Your task to perform on an android device: Add "dell xps" to the cart on walmart.com Image 0: 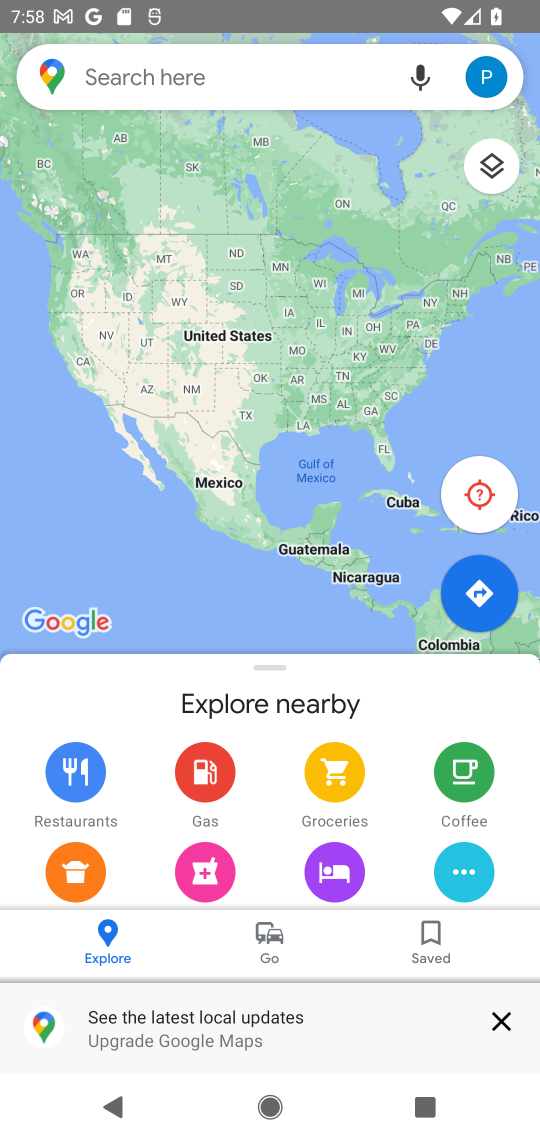
Step 0: press home button
Your task to perform on an android device: Add "dell xps" to the cart on walmart.com Image 1: 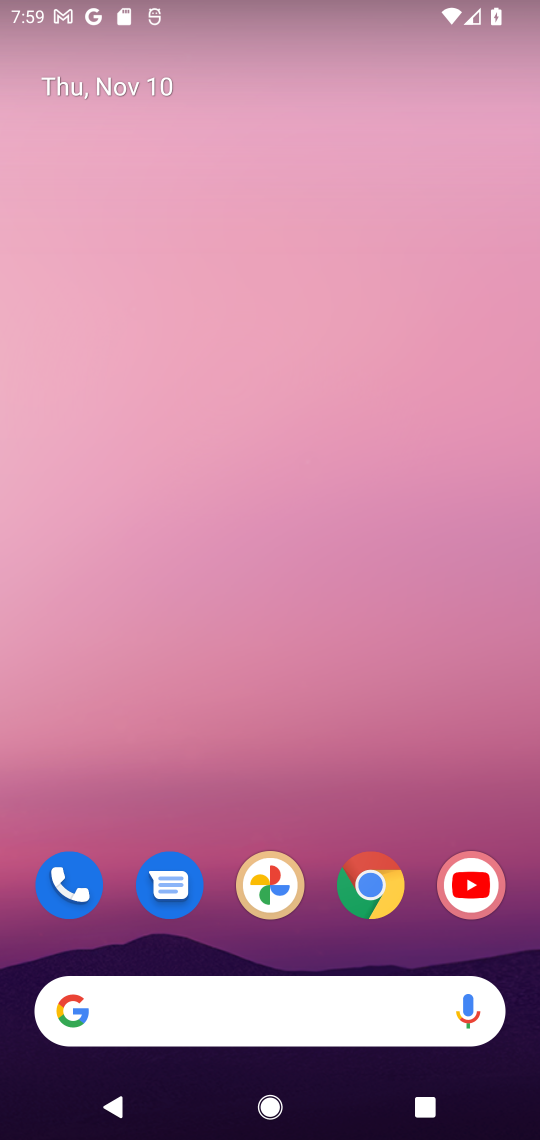
Step 1: click (374, 880)
Your task to perform on an android device: Add "dell xps" to the cart on walmart.com Image 2: 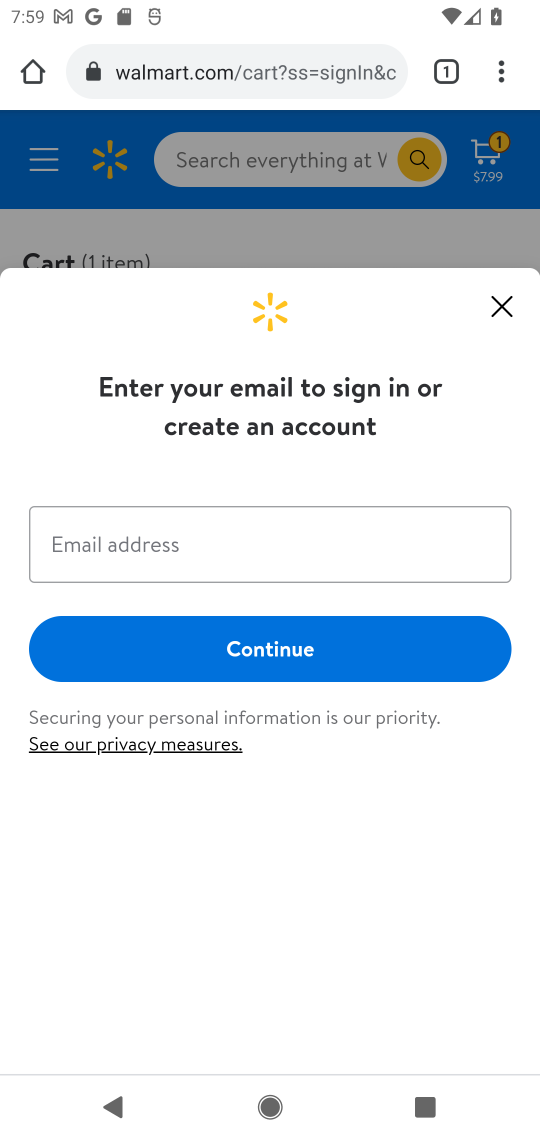
Step 2: click (501, 293)
Your task to perform on an android device: Add "dell xps" to the cart on walmart.com Image 3: 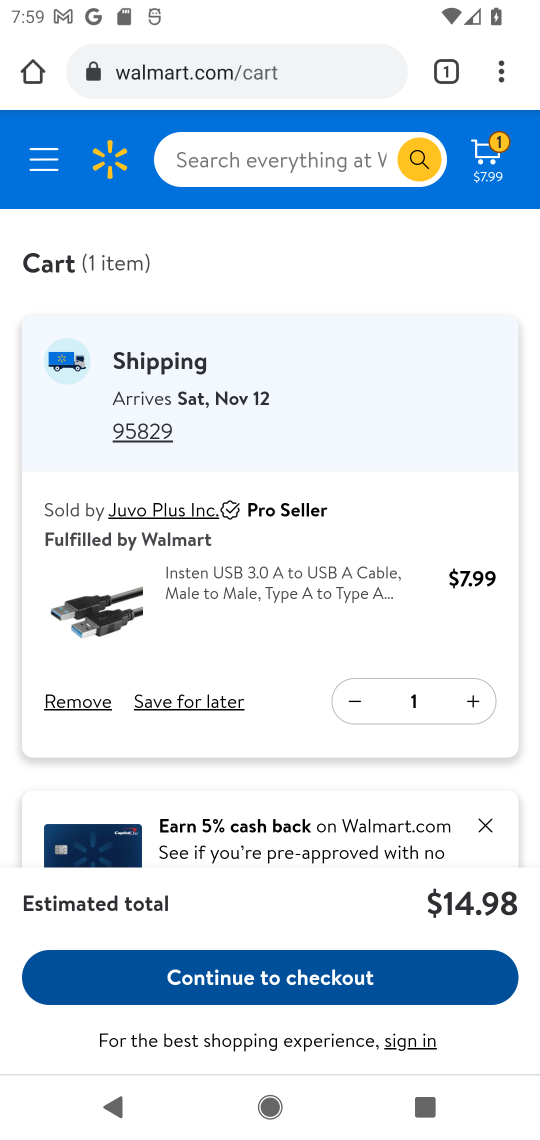
Step 3: click (310, 142)
Your task to perform on an android device: Add "dell xps" to the cart on walmart.com Image 4: 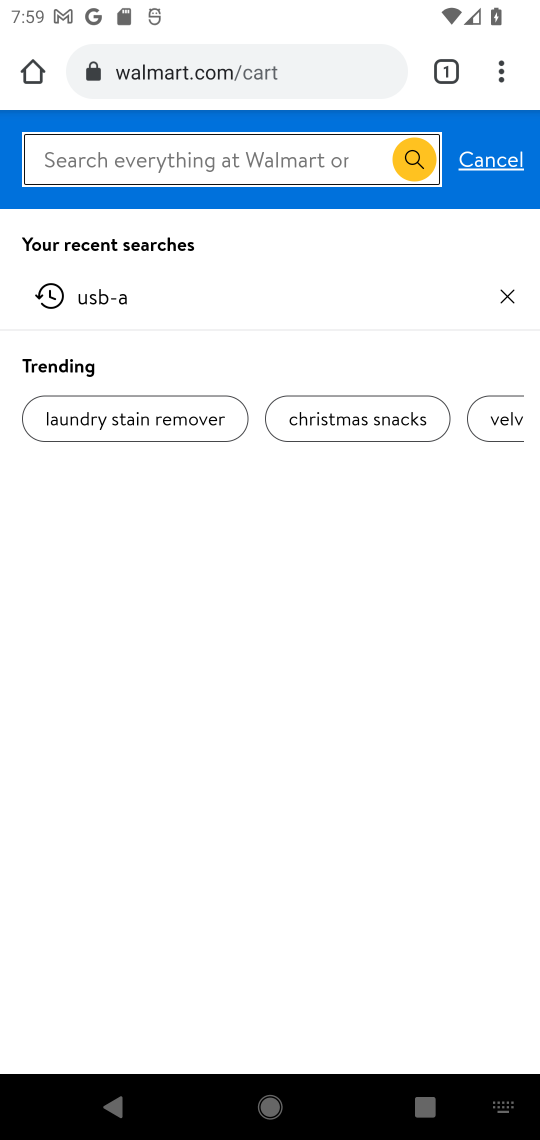
Step 4: type "dell xps"
Your task to perform on an android device: Add "dell xps" to the cart on walmart.com Image 5: 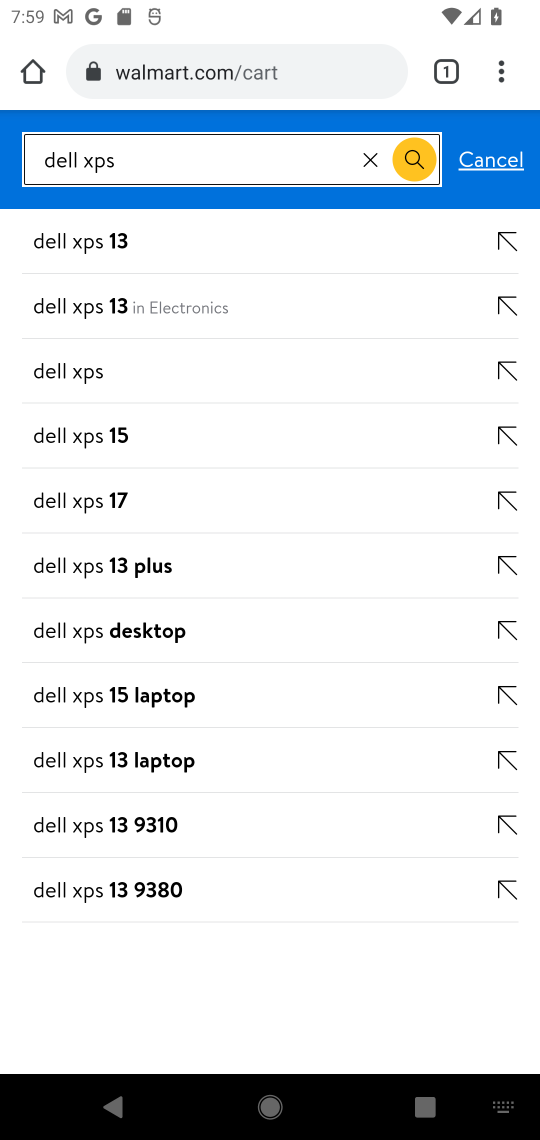
Step 5: click (87, 372)
Your task to perform on an android device: Add "dell xps" to the cart on walmart.com Image 6: 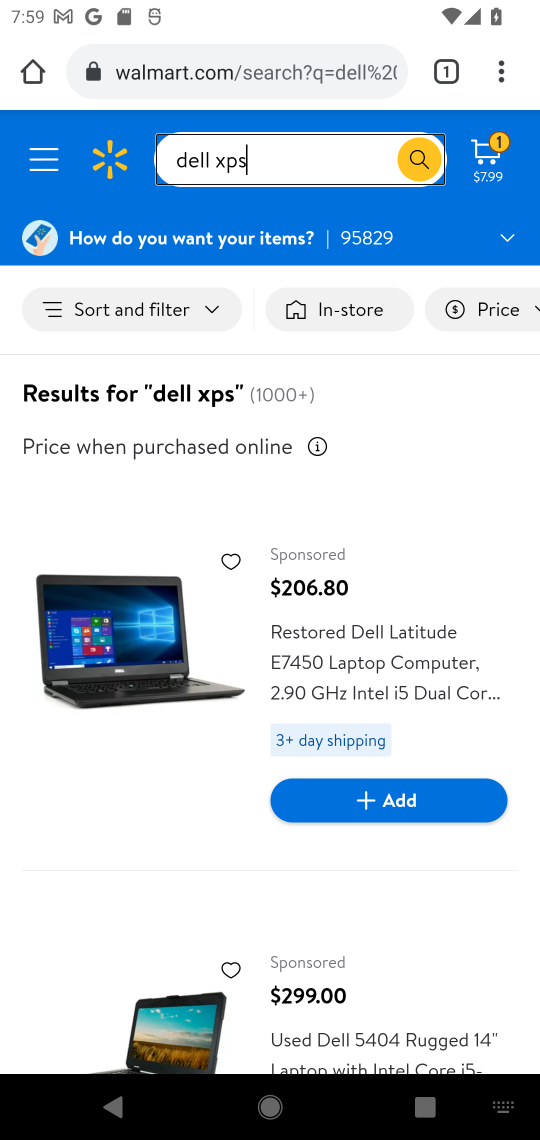
Step 6: drag from (144, 773) to (191, 383)
Your task to perform on an android device: Add "dell xps" to the cart on walmart.com Image 7: 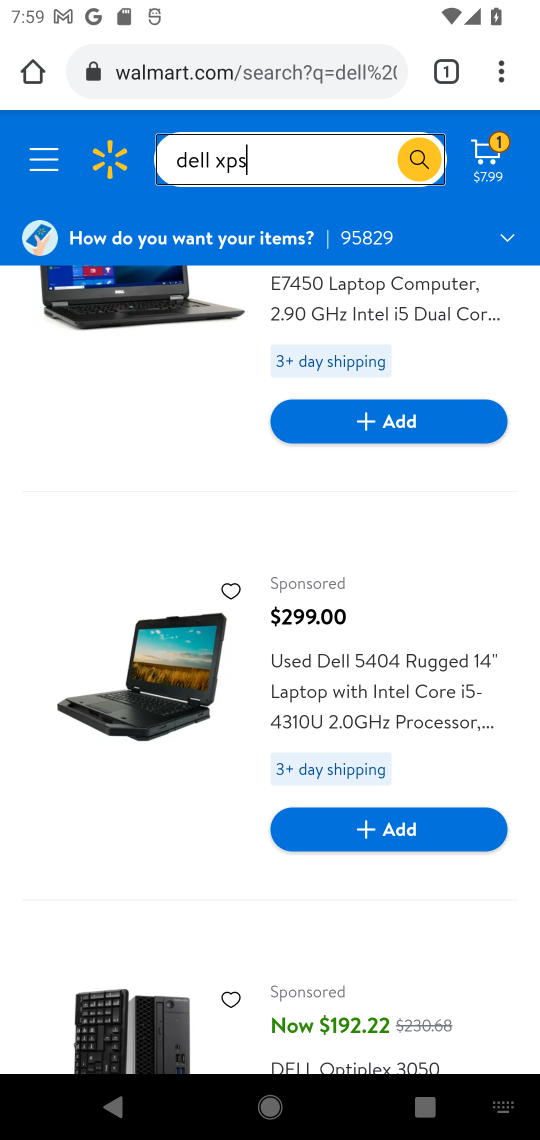
Step 7: drag from (450, 924) to (406, 591)
Your task to perform on an android device: Add "dell xps" to the cart on walmart.com Image 8: 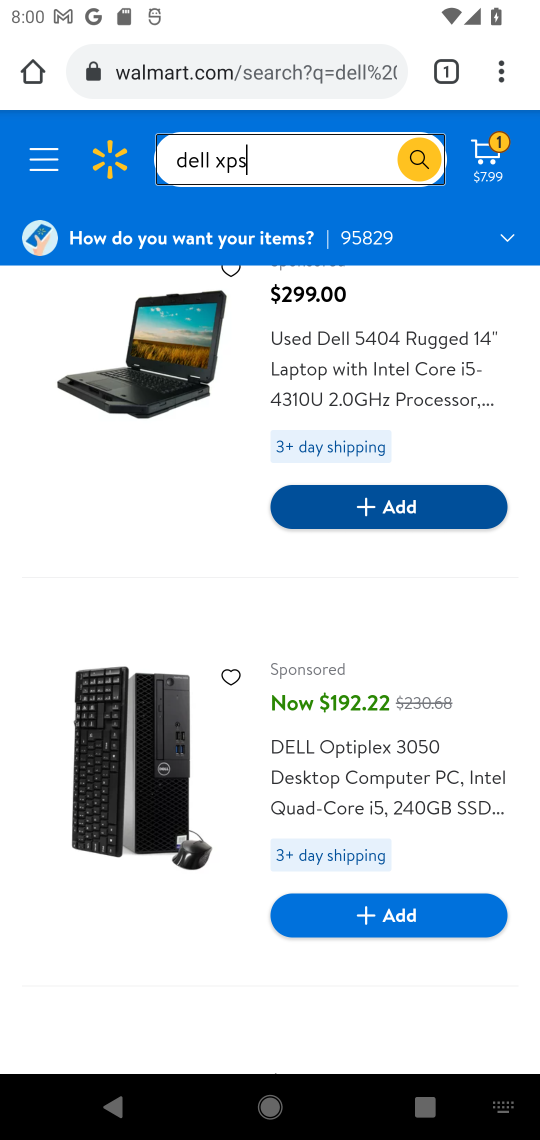
Step 8: drag from (381, 753) to (438, 354)
Your task to perform on an android device: Add "dell xps" to the cart on walmart.com Image 9: 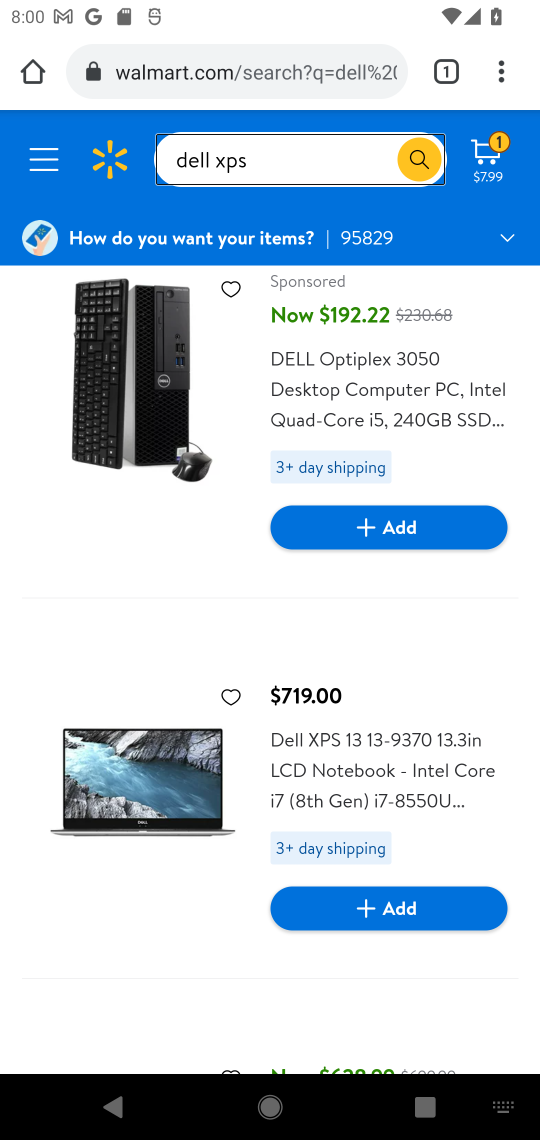
Step 9: click (143, 777)
Your task to perform on an android device: Add "dell xps" to the cart on walmart.com Image 10: 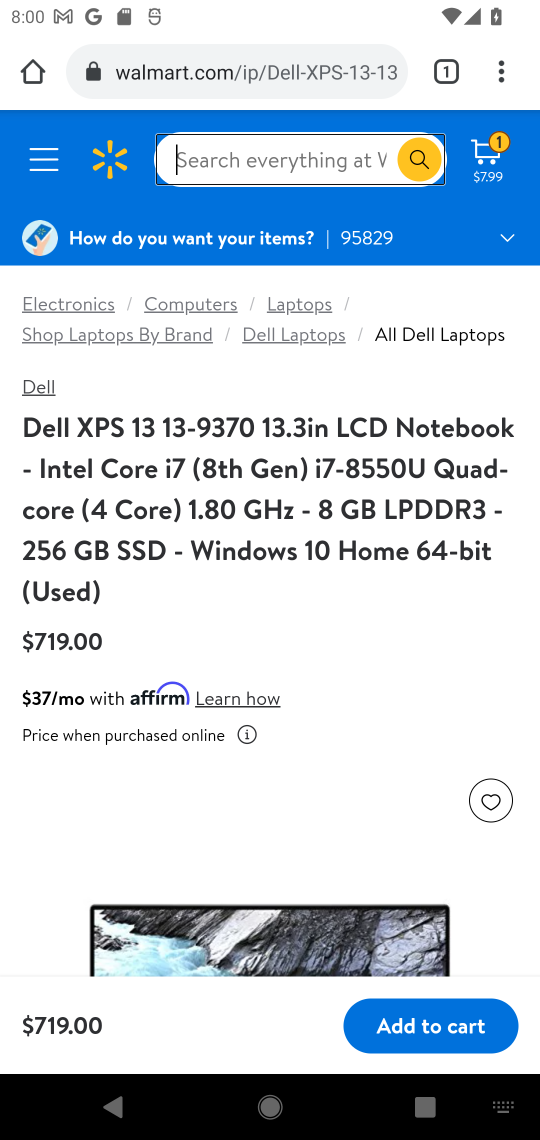
Step 10: click (391, 1024)
Your task to perform on an android device: Add "dell xps" to the cart on walmart.com Image 11: 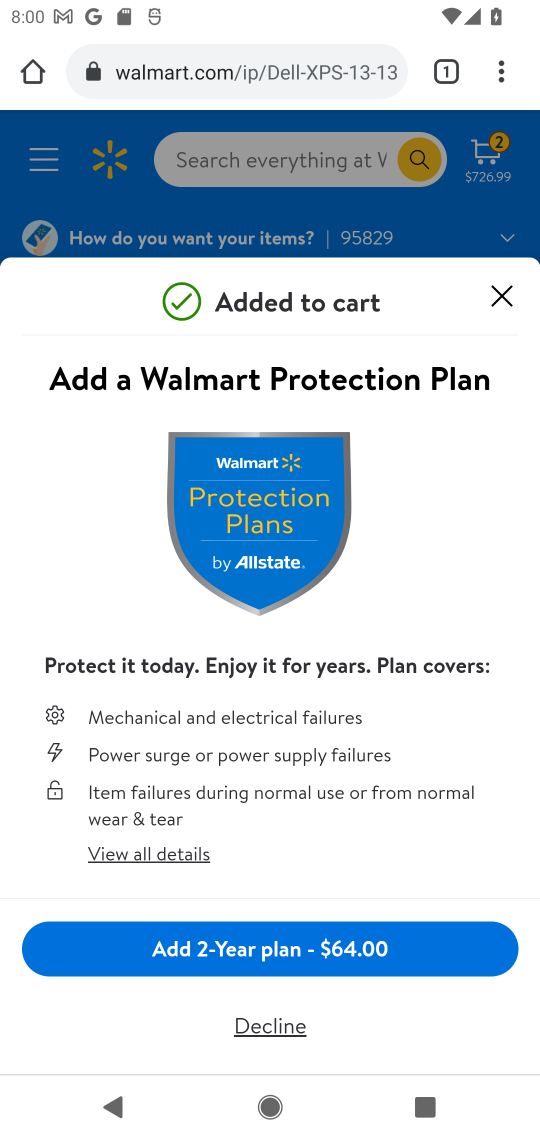
Step 11: task complete